Your task to perform on an android device: Open calendar and show me the fourth week of next month Image 0: 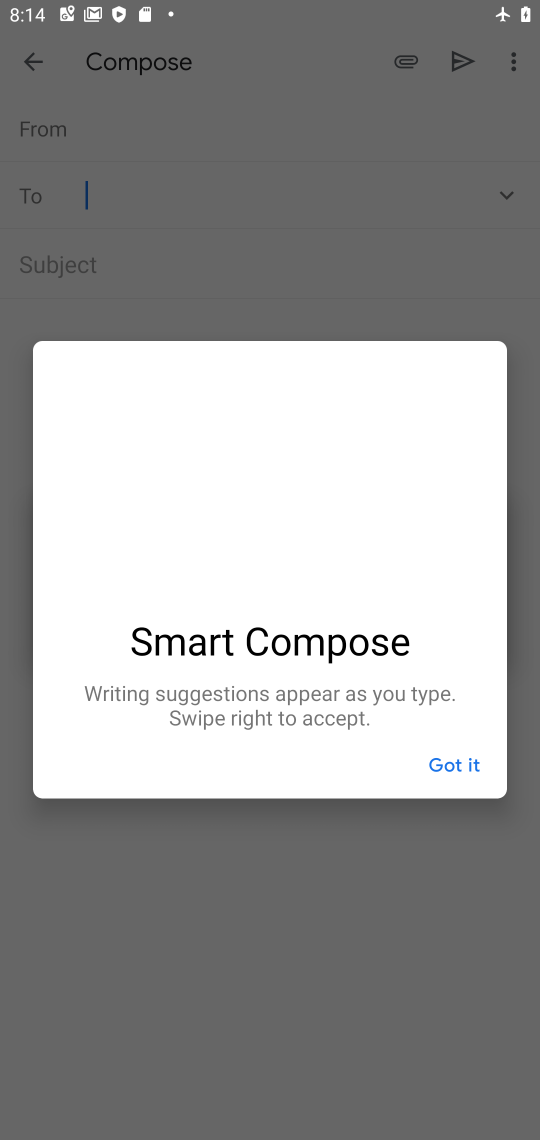
Step 0: press home button
Your task to perform on an android device: Open calendar and show me the fourth week of next month Image 1: 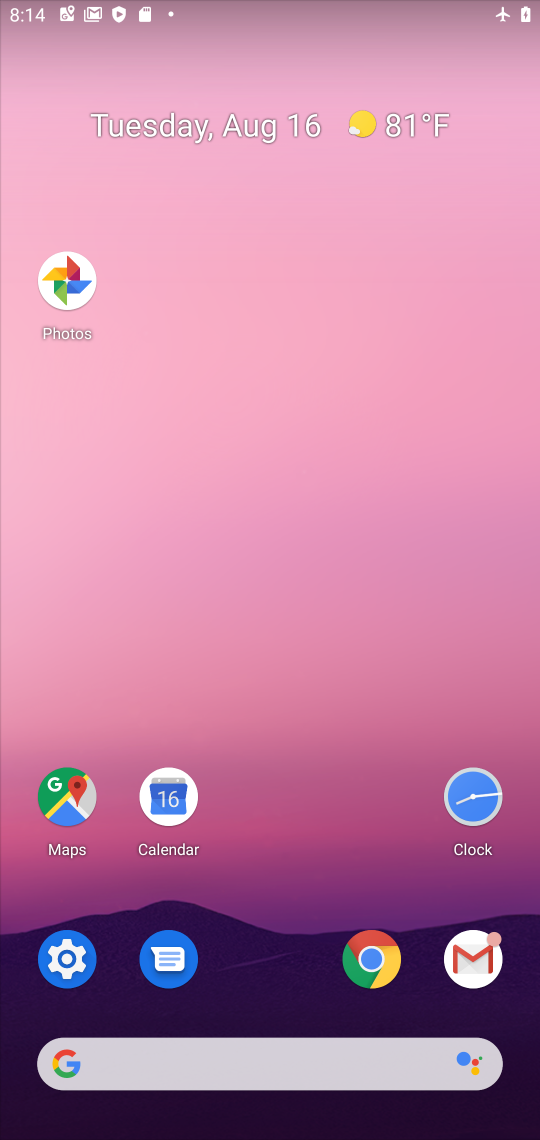
Step 1: click (167, 803)
Your task to perform on an android device: Open calendar and show me the fourth week of next month Image 2: 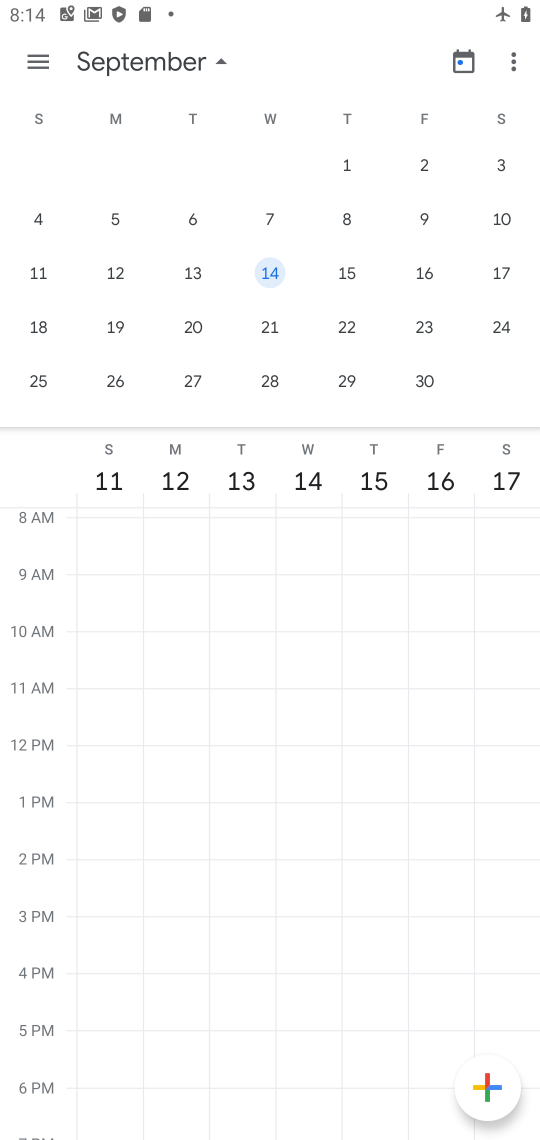
Step 2: click (265, 316)
Your task to perform on an android device: Open calendar and show me the fourth week of next month Image 3: 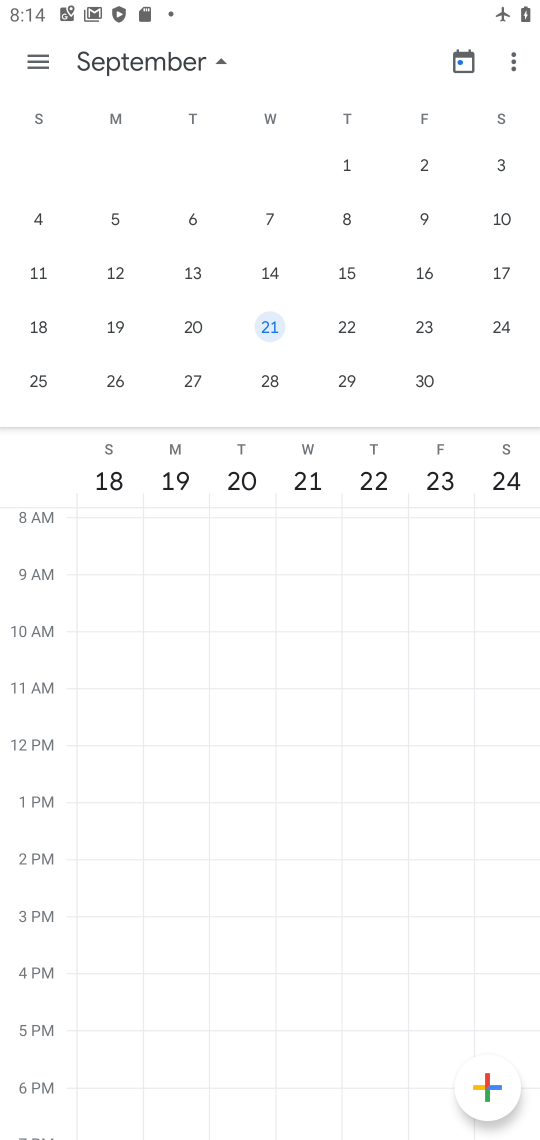
Step 3: task complete